Your task to perform on an android device: Show me popular videos on Youtube Image 0: 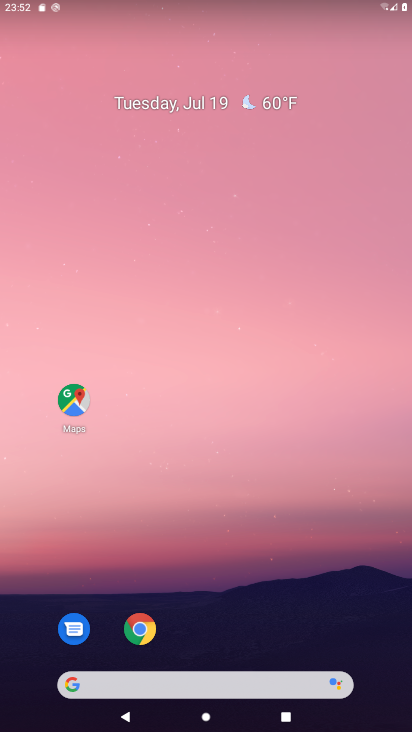
Step 0: drag from (257, 601) to (266, 81)
Your task to perform on an android device: Show me popular videos on Youtube Image 1: 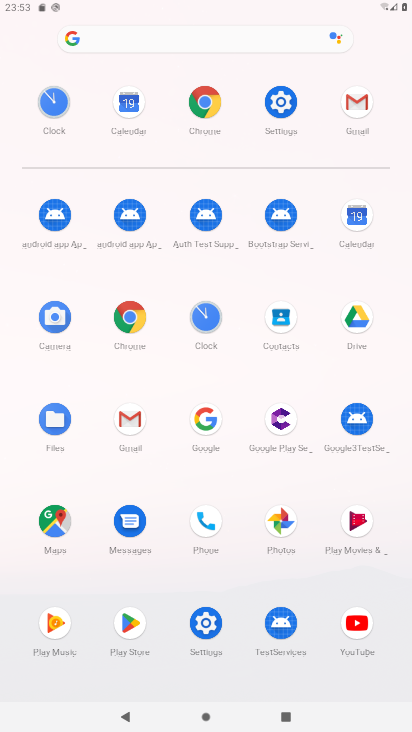
Step 1: click (358, 618)
Your task to perform on an android device: Show me popular videos on Youtube Image 2: 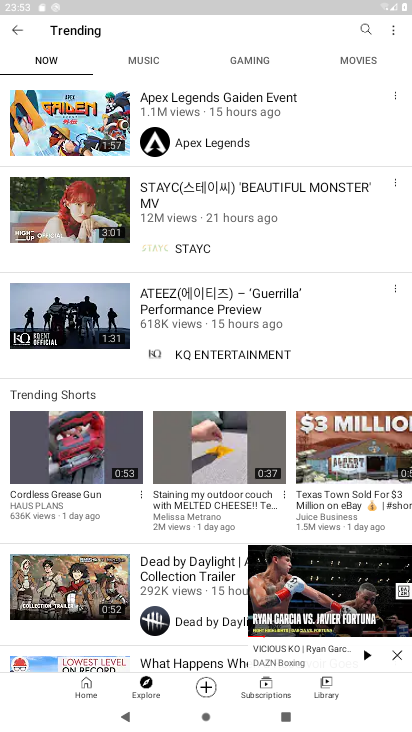
Step 2: task complete